Your task to perform on an android device: uninstall "NewsBreak: Local News & Alerts" Image 0: 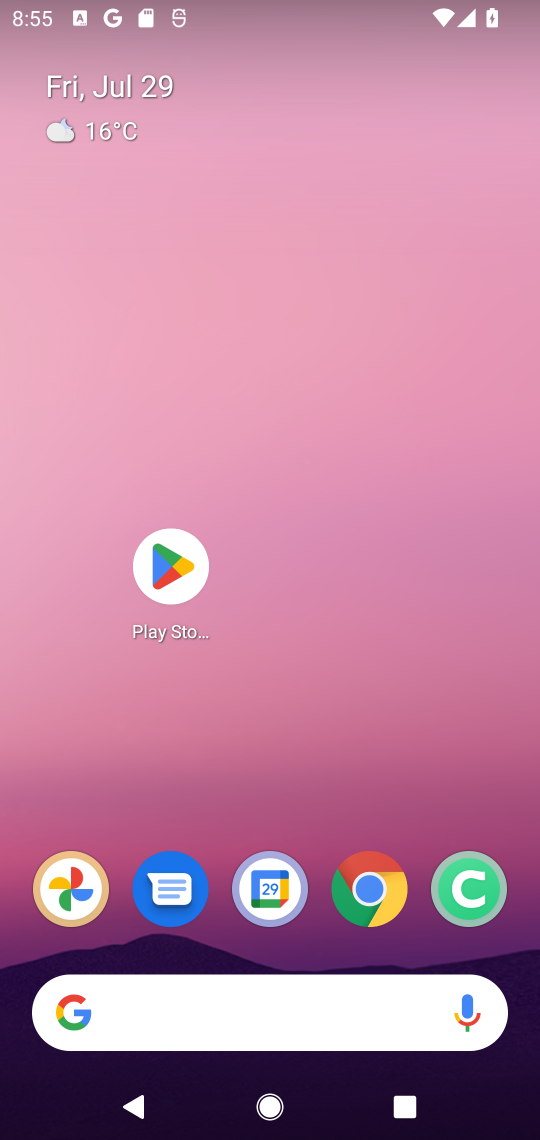
Step 0: press home button
Your task to perform on an android device: uninstall "NewsBreak: Local News & Alerts" Image 1: 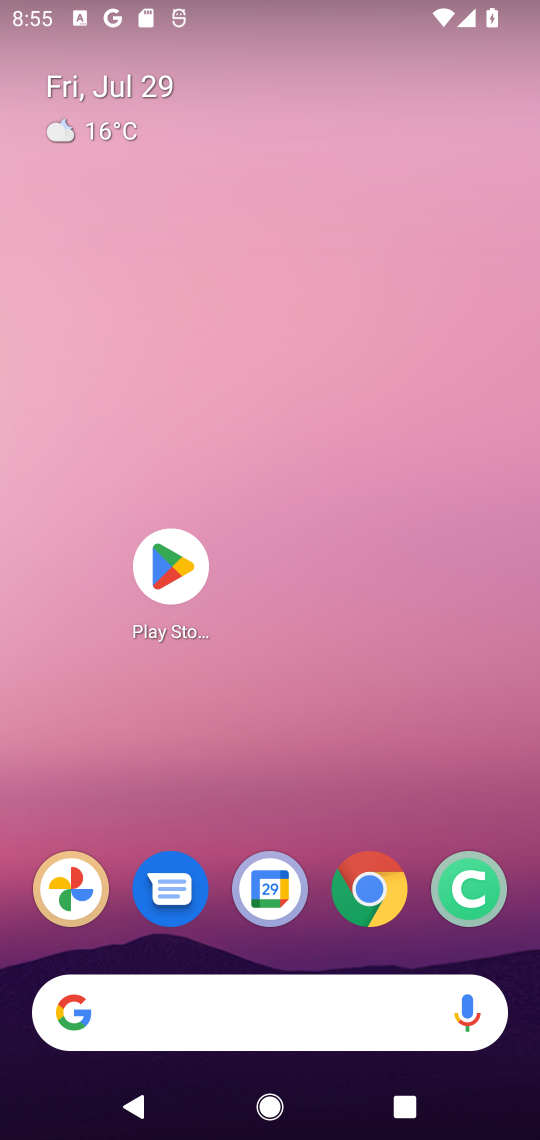
Step 1: click (164, 568)
Your task to perform on an android device: uninstall "NewsBreak: Local News & Alerts" Image 2: 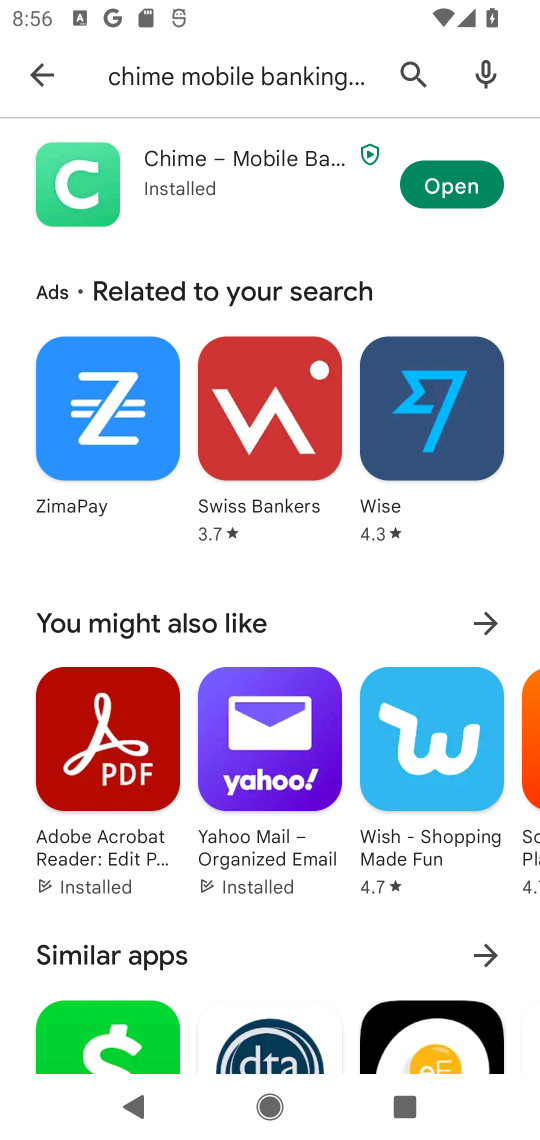
Step 2: click (411, 59)
Your task to perform on an android device: uninstall "NewsBreak: Local News & Alerts" Image 3: 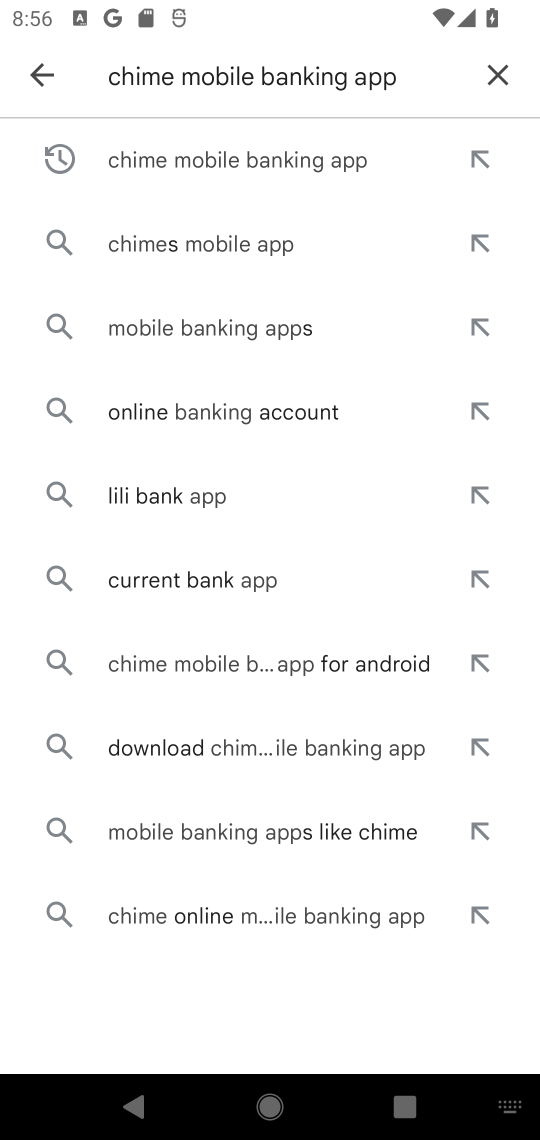
Step 3: click (489, 73)
Your task to perform on an android device: uninstall "NewsBreak: Local News & Alerts" Image 4: 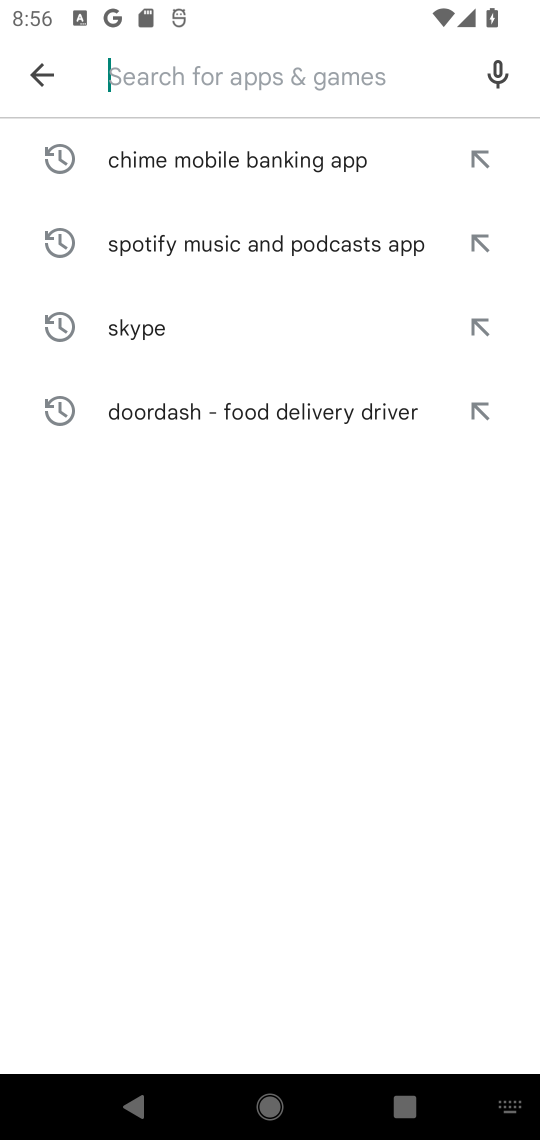
Step 4: type "NewsBreak: Local News & Alerts"
Your task to perform on an android device: uninstall "NewsBreak: Local News & Alerts" Image 5: 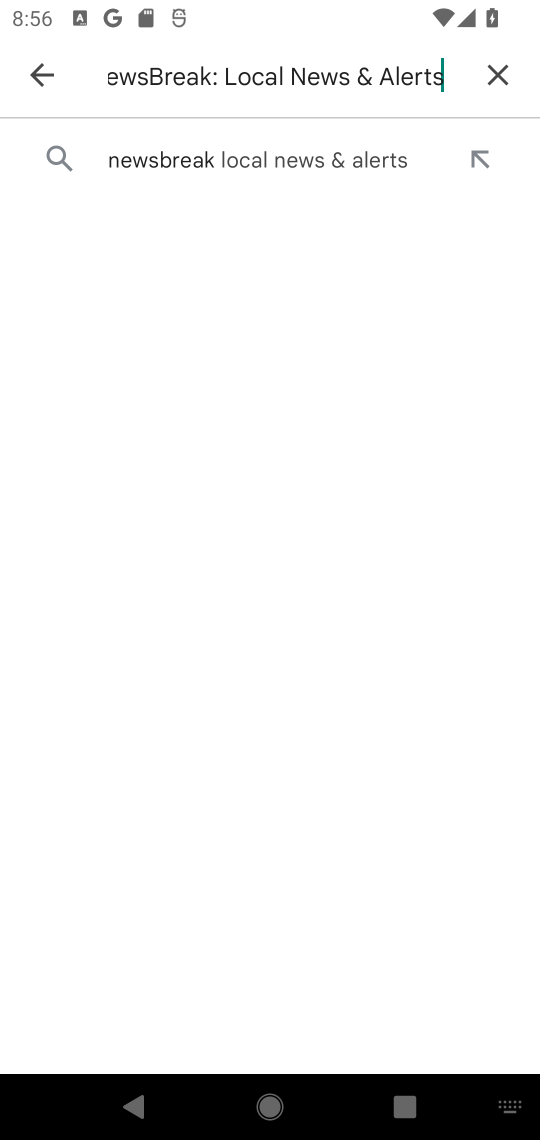
Step 5: click (359, 157)
Your task to perform on an android device: uninstall "NewsBreak: Local News & Alerts" Image 6: 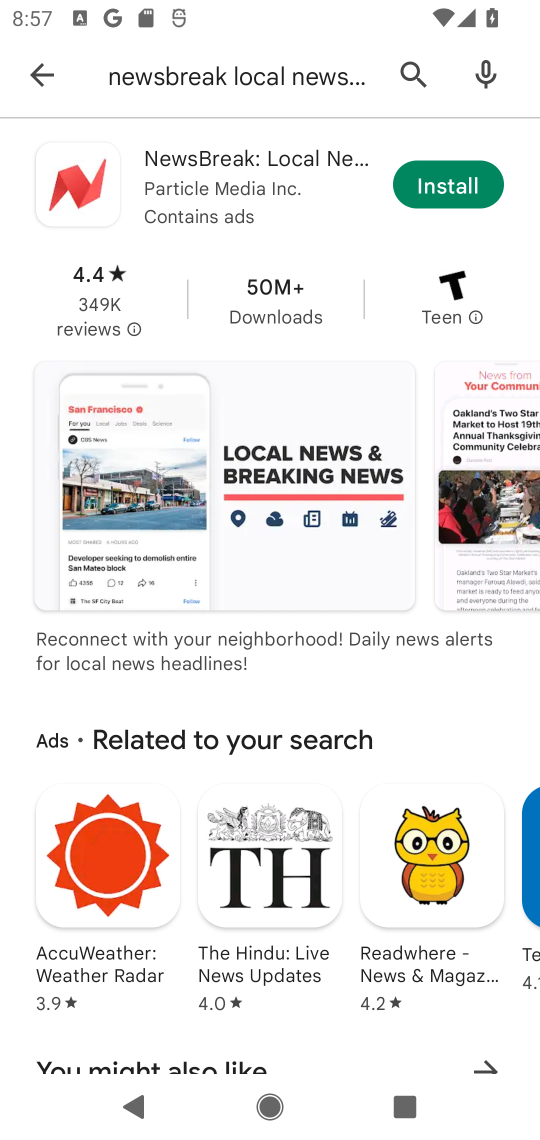
Step 6: task complete